Your task to perform on an android device: empty trash in google photos Image 0: 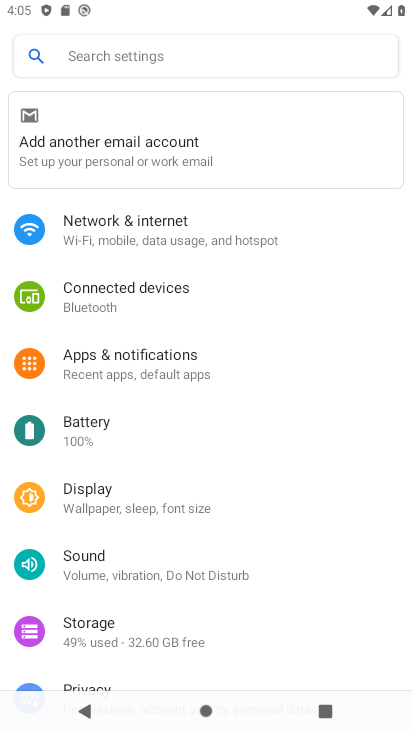
Step 0: press home button
Your task to perform on an android device: empty trash in google photos Image 1: 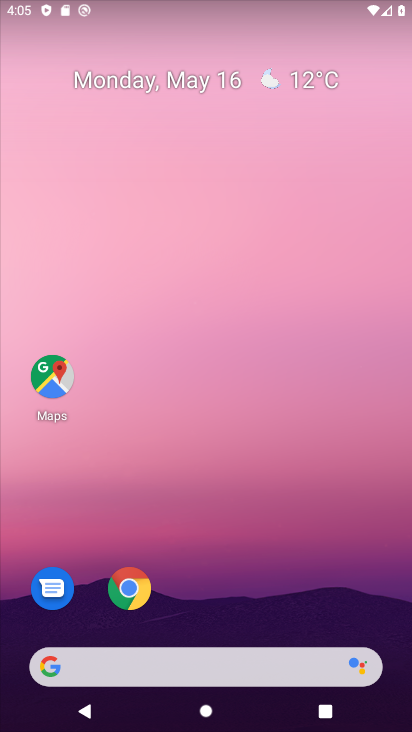
Step 1: drag from (243, 569) to (239, 88)
Your task to perform on an android device: empty trash in google photos Image 2: 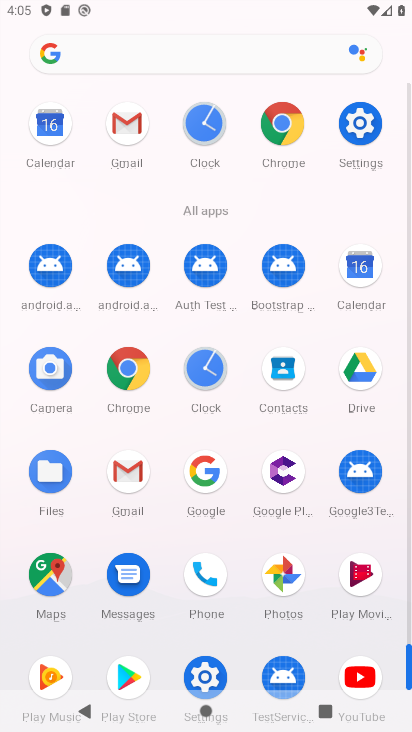
Step 2: click (286, 571)
Your task to perform on an android device: empty trash in google photos Image 3: 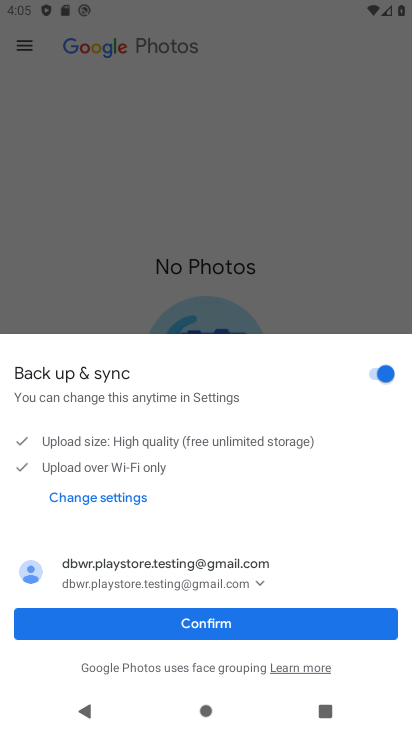
Step 3: click (269, 613)
Your task to perform on an android device: empty trash in google photos Image 4: 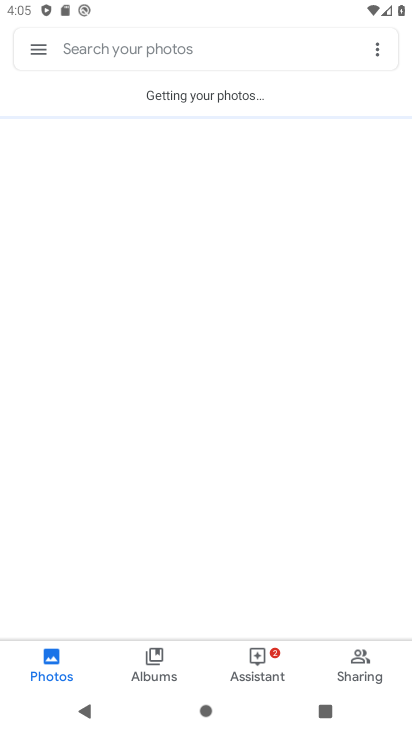
Step 4: click (160, 662)
Your task to perform on an android device: empty trash in google photos Image 5: 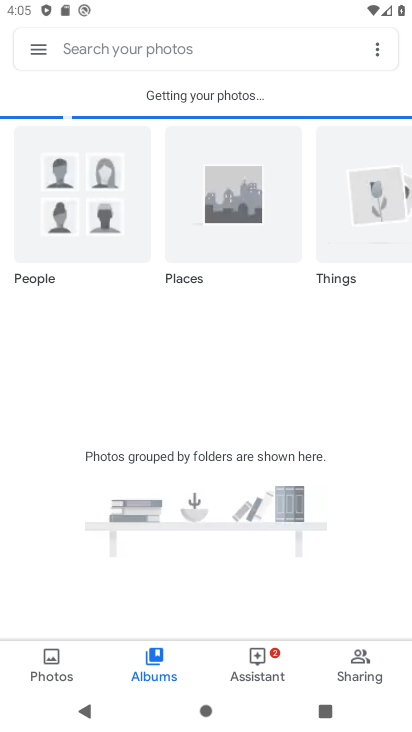
Step 5: click (38, 49)
Your task to perform on an android device: empty trash in google photos Image 6: 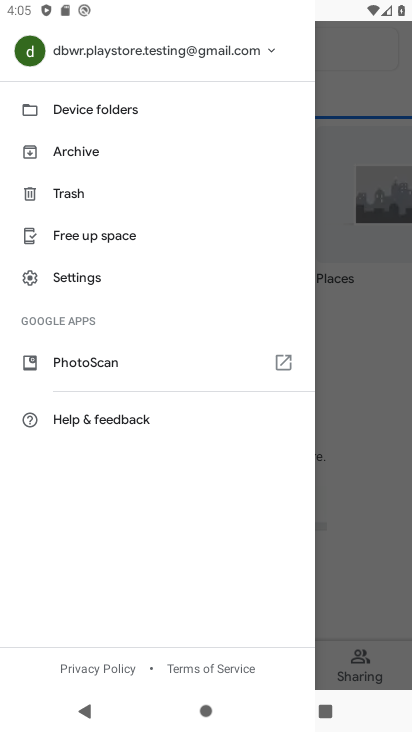
Step 6: click (72, 193)
Your task to perform on an android device: empty trash in google photos Image 7: 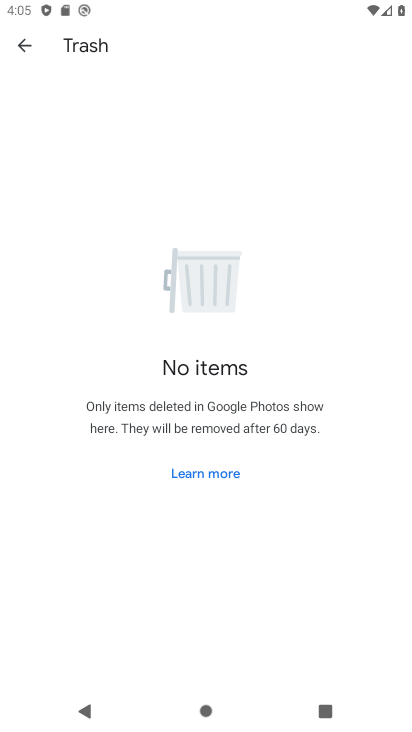
Step 7: task complete